Your task to perform on an android device: Search for Mexican restaurants on Maps Image 0: 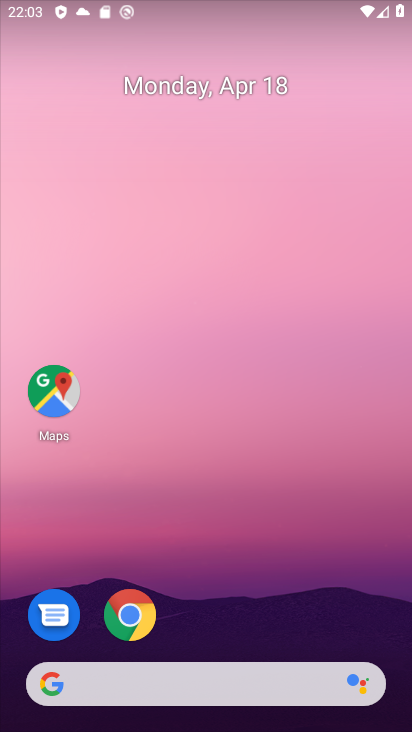
Step 0: click (52, 394)
Your task to perform on an android device: Search for Mexican restaurants on Maps Image 1: 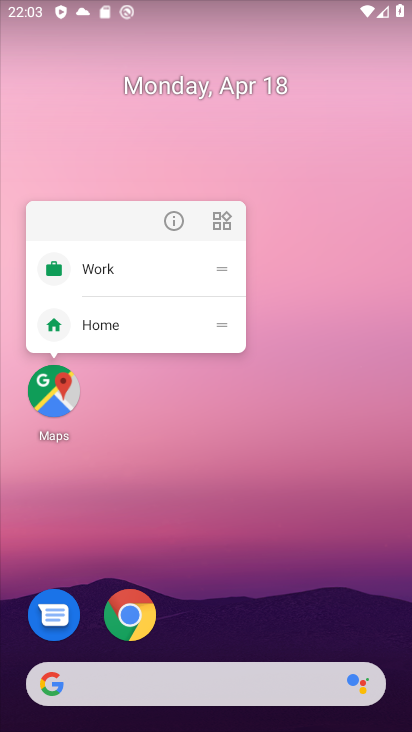
Step 1: click (48, 392)
Your task to perform on an android device: Search for Mexican restaurants on Maps Image 2: 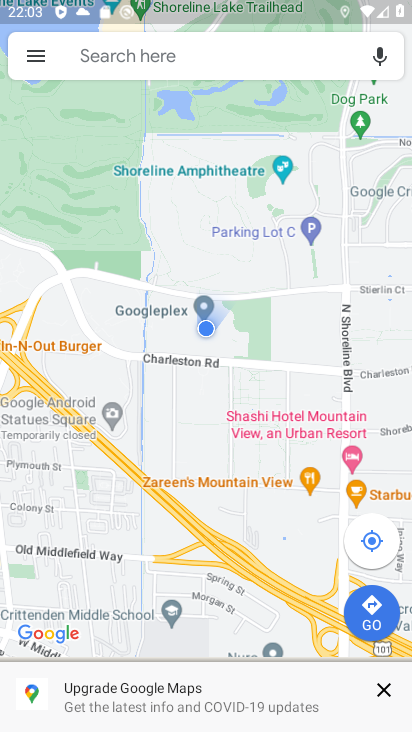
Step 2: click (100, 60)
Your task to perform on an android device: Search for Mexican restaurants on Maps Image 3: 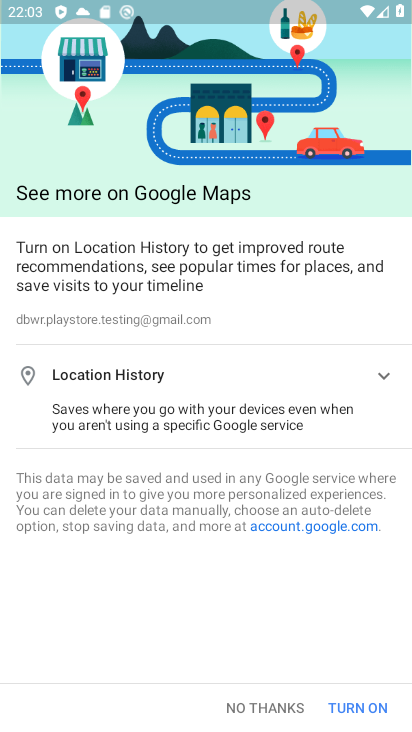
Step 3: click (278, 716)
Your task to perform on an android device: Search for Mexican restaurants on Maps Image 4: 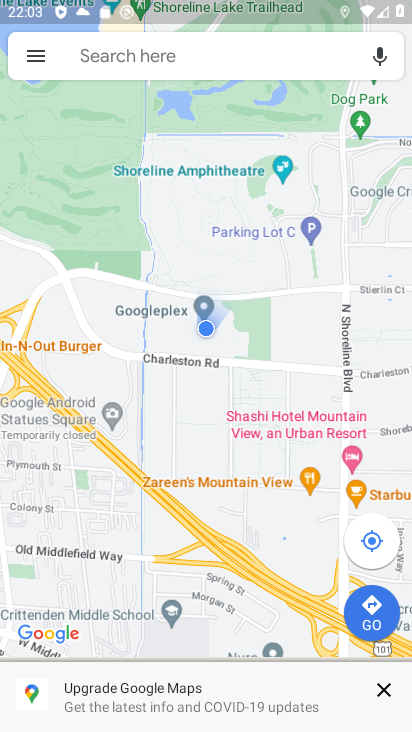
Step 4: click (140, 50)
Your task to perform on an android device: Search for Mexican restaurants on Maps Image 5: 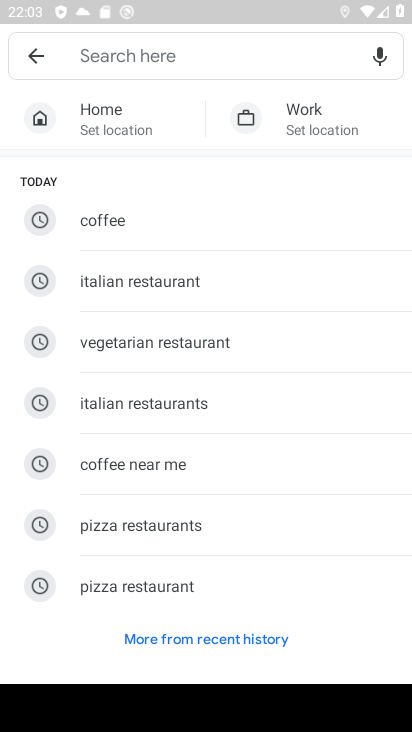
Step 5: type "mexican restaurant"
Your task to perform on an android device: Search for Mexican restaurants on Maps Image 6: 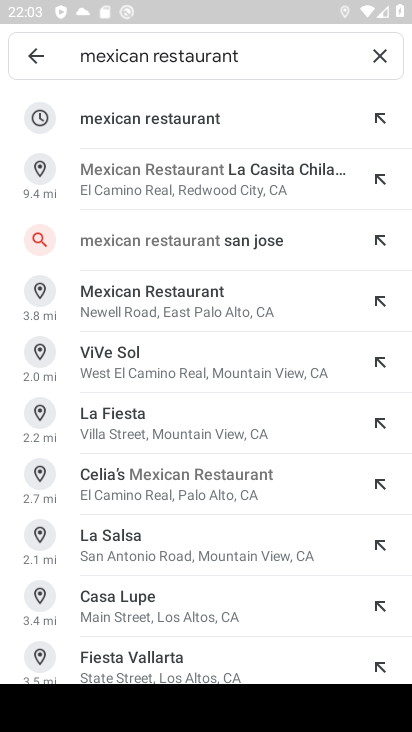
Step 6: click (152, 121)
Your task to perform on an android device: Search for Mexican restaurants on Maps Image 7: 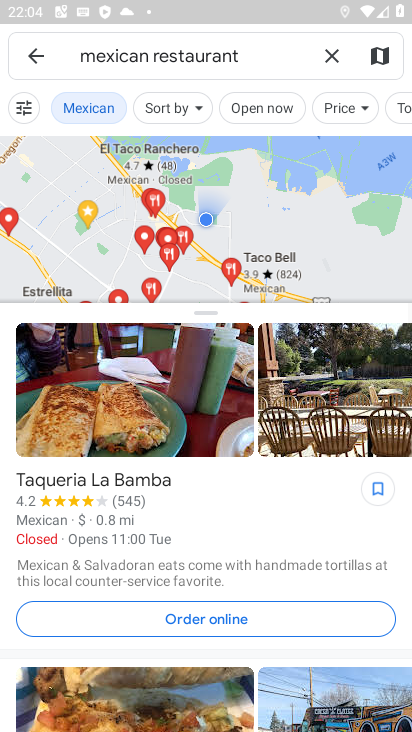
Step 7: task complete